Your task to perform on an android device: install app "Etsy: Buy & Sell Unique Items" Image 0: 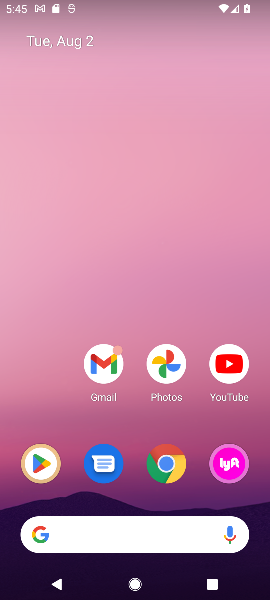
Step 0: press home button
Your task to perform on an android device: install app "Etsy: Buy & Sell Unique Items" Image 1: 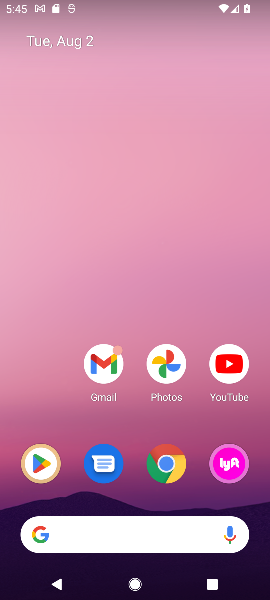
Step 1: click (47, 460)
Your task to perform on an android device: install app "Etsy: Buy & Sell Unique Items" Image 2: 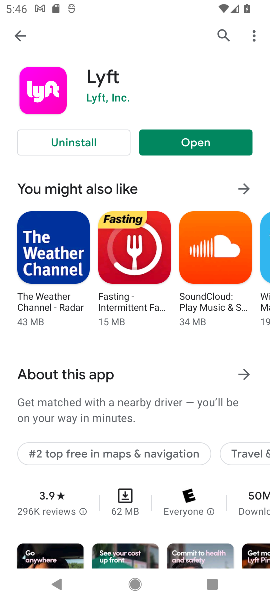
Step 2: click (223, 33)
Your task to perform on an android device: install app "Etsy: Buy & Sell Unique Items" Image 3: 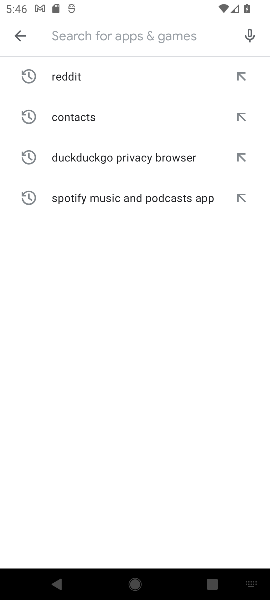
Step 3: type "Etsy: Buy & Sell Unique Items"
Your task to perform on an android device: install app "Etsy: Buy & Sell Unique Items" Image 4: 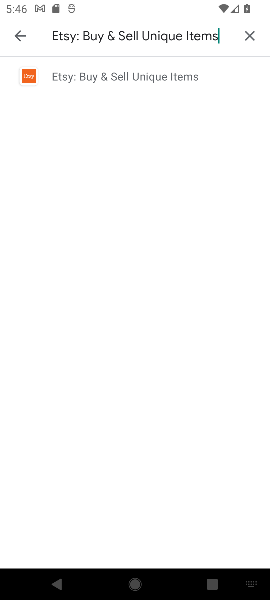
Step 4: click (134, 80)
Your task to perform on an android device: install app "Etsy: Buy & Sell Unique Items" Image 5: 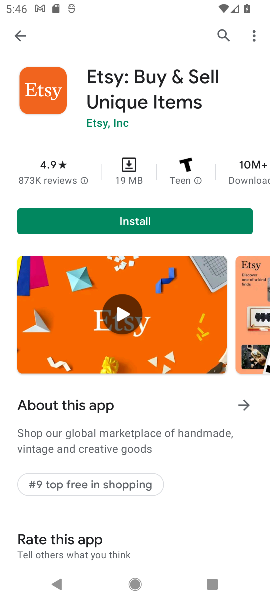
Step 5: click (151, 218)
Your task to perform on an android device: install app "Etsy: Buy & Sell Unique Items" Image 6: 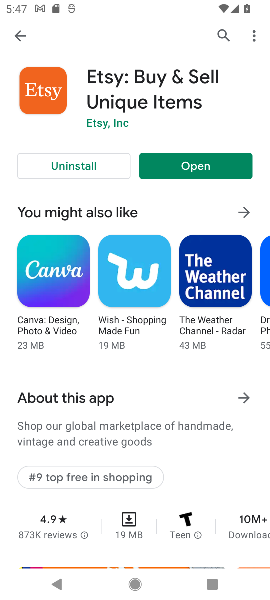
Step 6: task complete